Your task to perform on an android device: Go to Google Image 0: 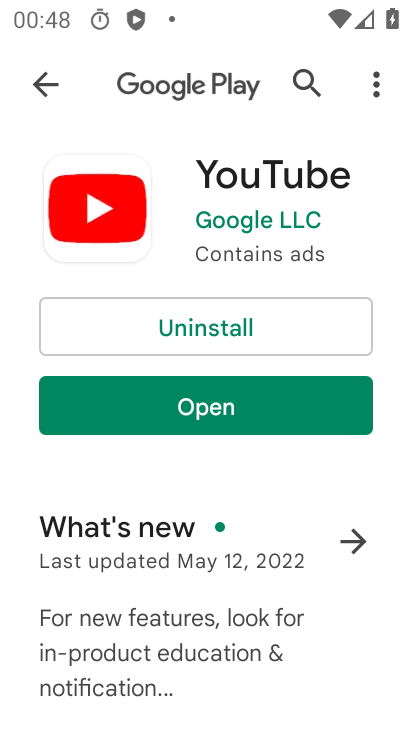
Step 0: press home button
Your task to perform on an android device: Go to Google Image 1: 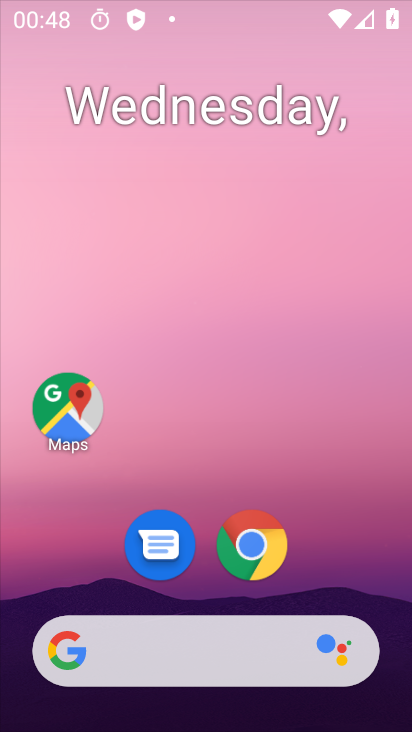
Step 1: drag from (231, 449) to (332, 26)
Your task to perform on an android device: Go to Google Image 2: 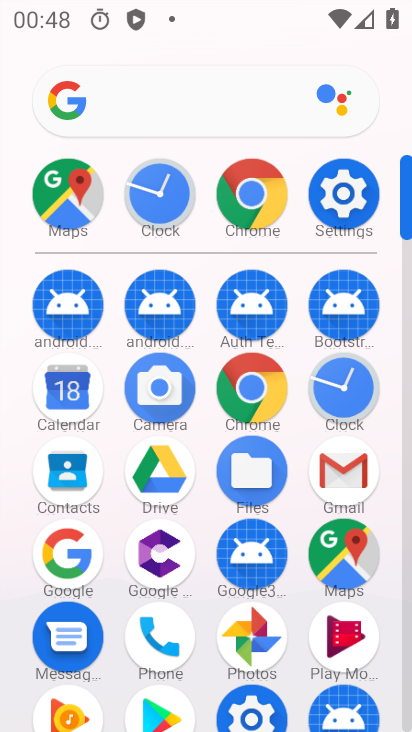
Step 2: click (64, 565)
Your task to perform on an android device: Go to Google Image 3: 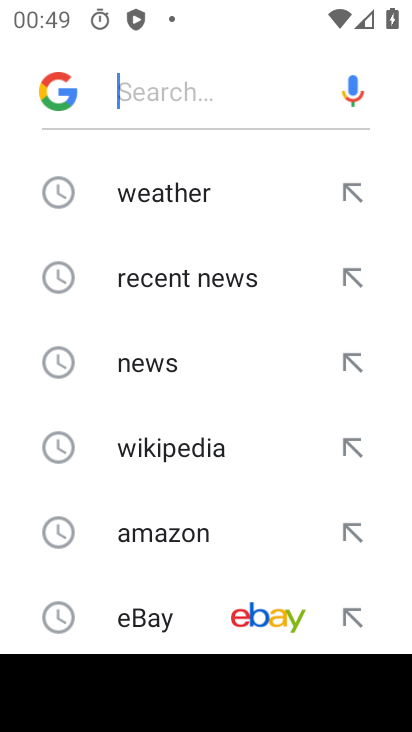
Step 3: task complete